Your task to perform on an android device: Go to location settings Image 0: 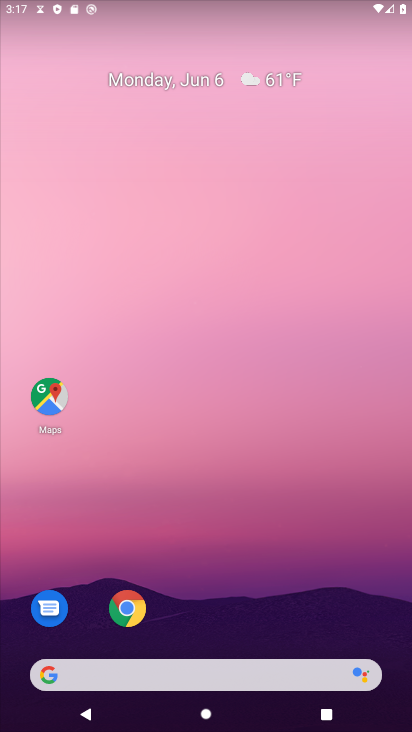
Step 0: drag from (255, 601) to (227, 4)
Your task to perform on an android device: Go to location settings Image 1: 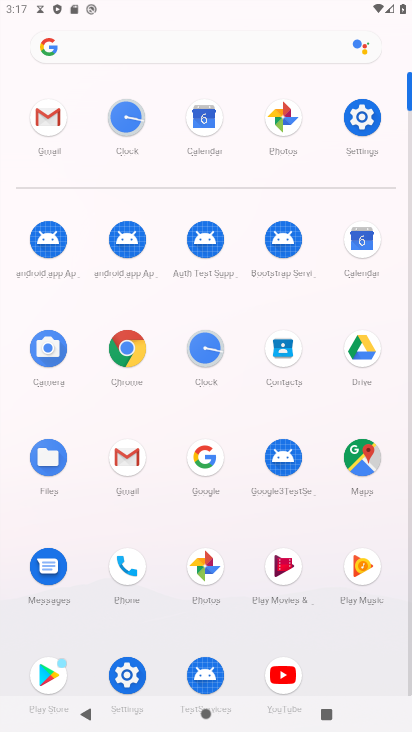
Step 1: click (360, 112)
Your task to perform on an android device: Go to location settings Image 2: 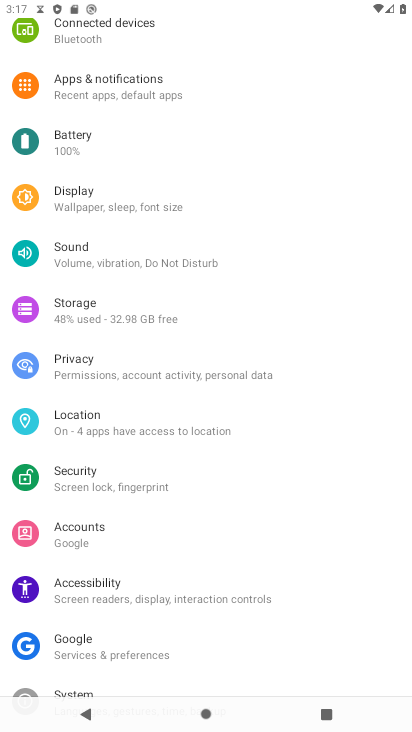
Step 2: click (130, 434)
Your task to perform on an android device: Go to location settings Image 3: 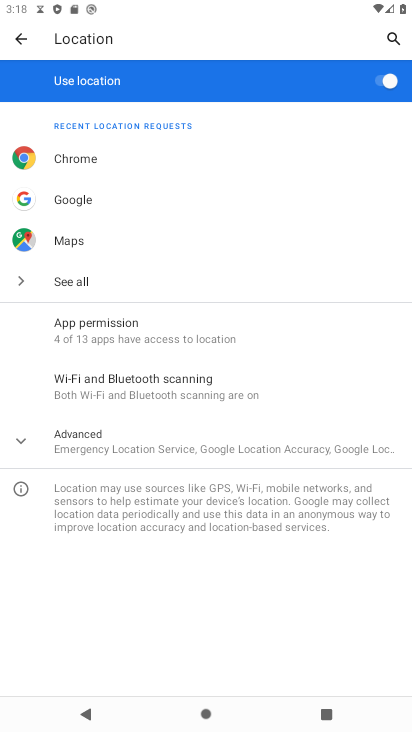
Step 3: click (115, 444)
Your task to perform on an android device: Go to location settings Image 4: 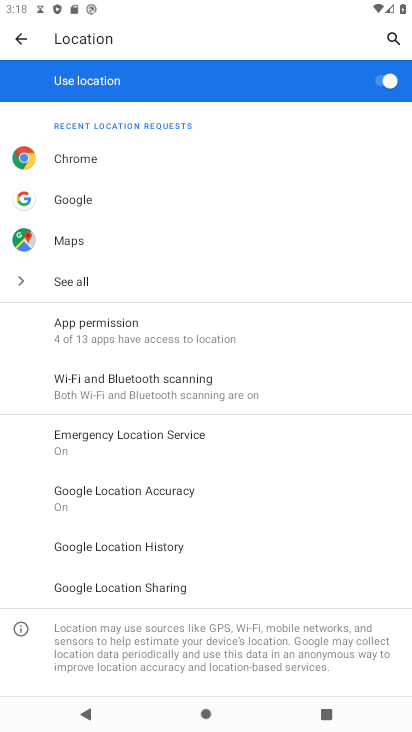
Step 4: task complete